Your task to perform on an android device: check data usage Image 0: 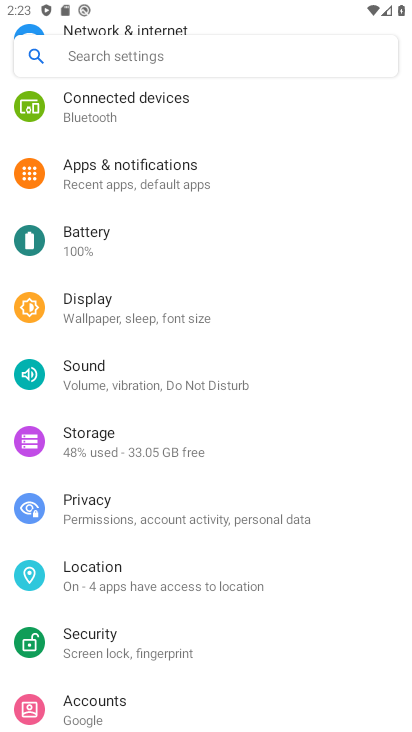
Step 0: press home button
Your task to perform on an android device: check data usage Image 1: 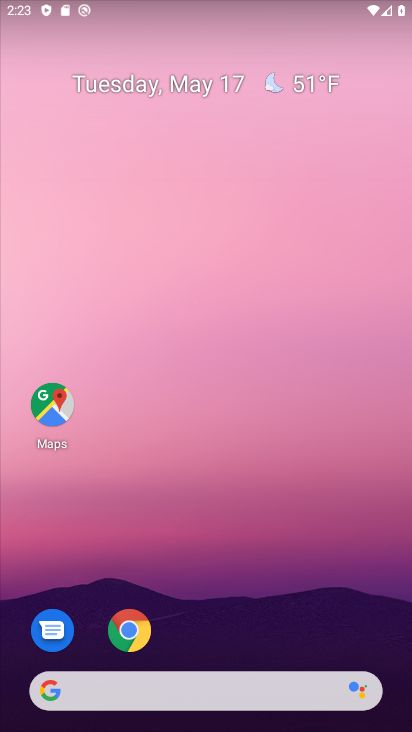
Step 1: drag from (226, 628) to (265, 85)
Your task to perform on an android device: check data usage Image 2: 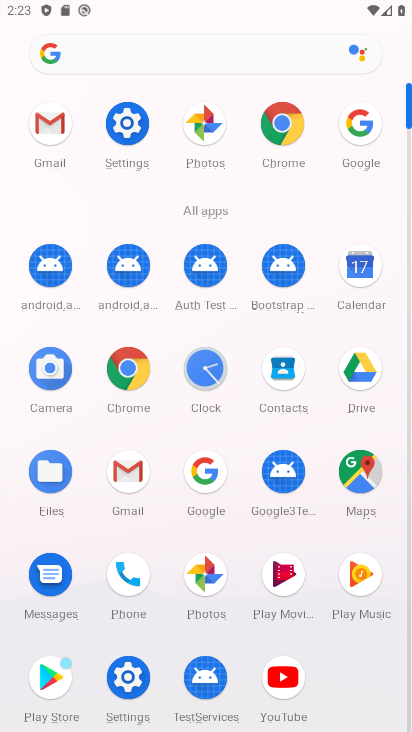
Step 2: click (125, 136)
Your task to perform on an android device: check data usage Image 3: 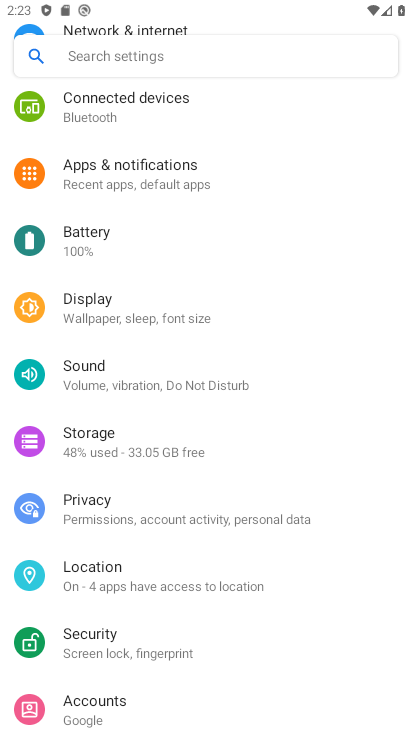
Step 3: drag from (148, 136) to (90, 450)
Your task to perform on an android device: check data usage Image 4: 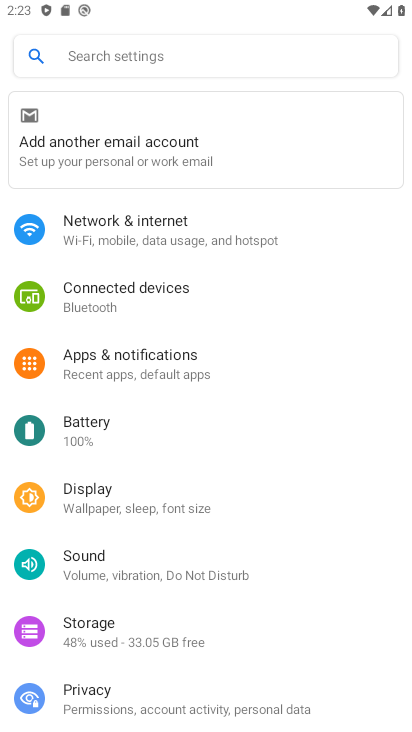
Step 4: click (128, 240)
Your task to perform on an android device: check data usage Image 5: 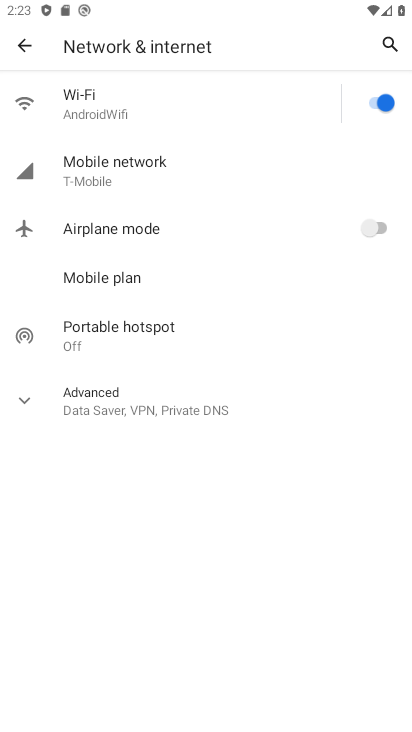
Step 5: click (159, 188)
Your task to perform on an android device: check data usage Image 6: 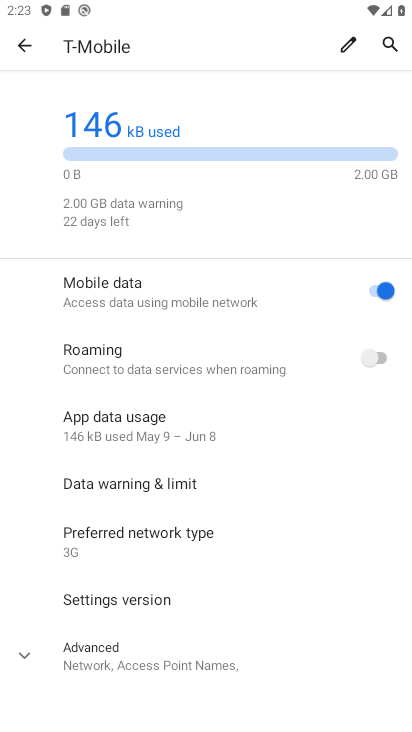
Step 6: task complete